Your task to perform on an android device: Open accessibility settings Image 0: 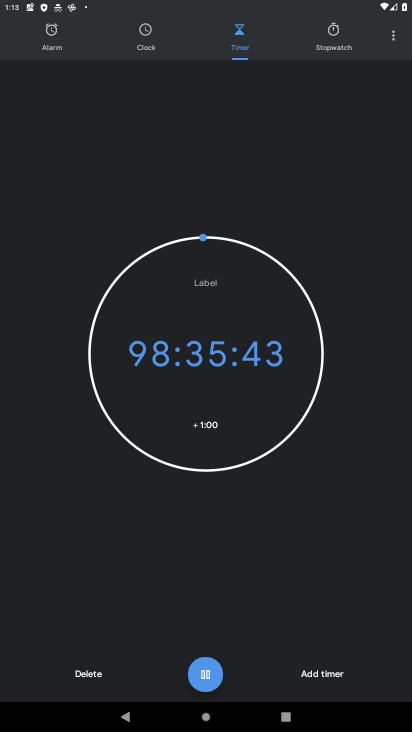
Step 0: press home button
Your task to perform on an android device: Open accessibility settings Image 1: 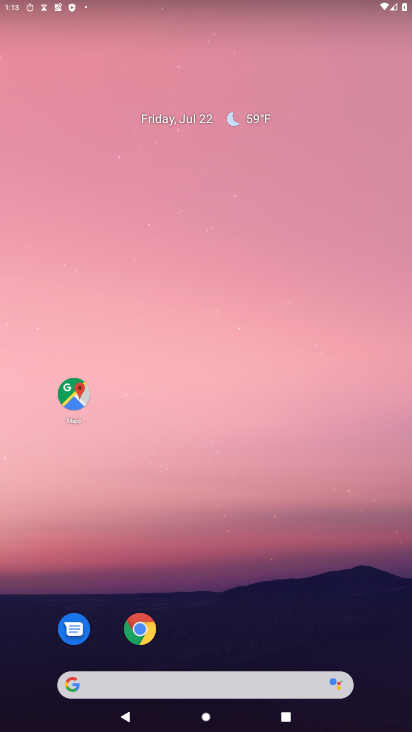
Step 1: drag from (138, 683) to (137, 61)
Your task to perform on an android device: Open accessibility settings Image 2: 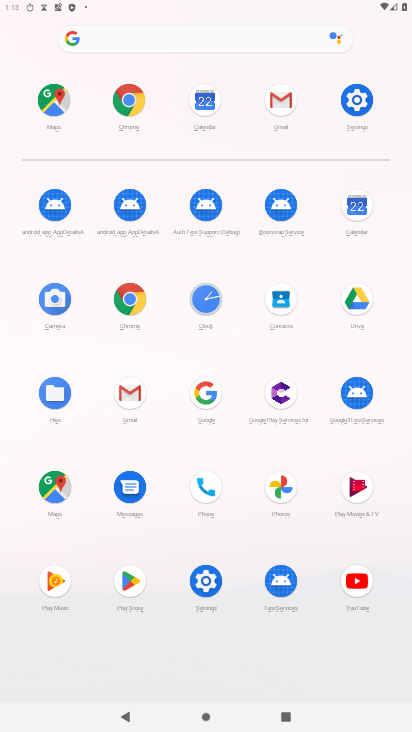
Step 2: click (362, 102)
Your task to perform on an android device: Open accessibility settings Image 3: 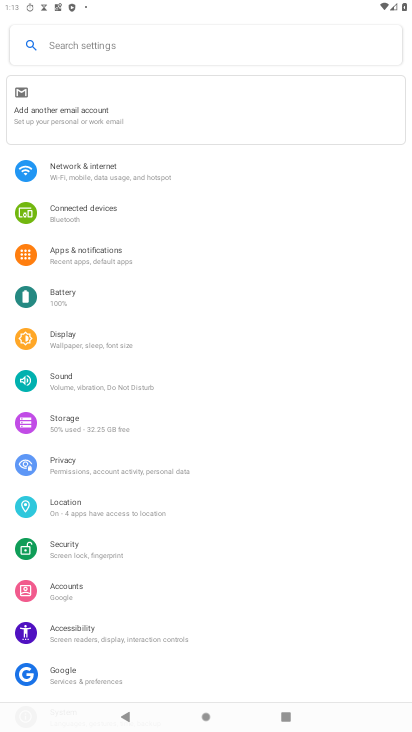
Step 3: click (85, 628)
Your task to perform on an android device: Open accessibility settings Image 4: 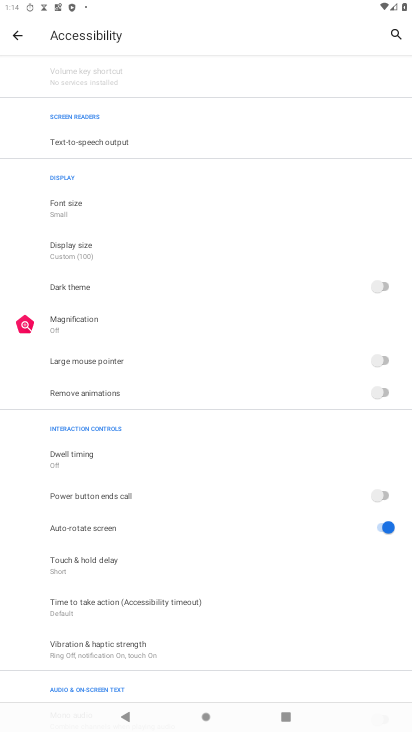
Step 4: task complete